Your task to perform on an android device: all mails in gmail Image 0: 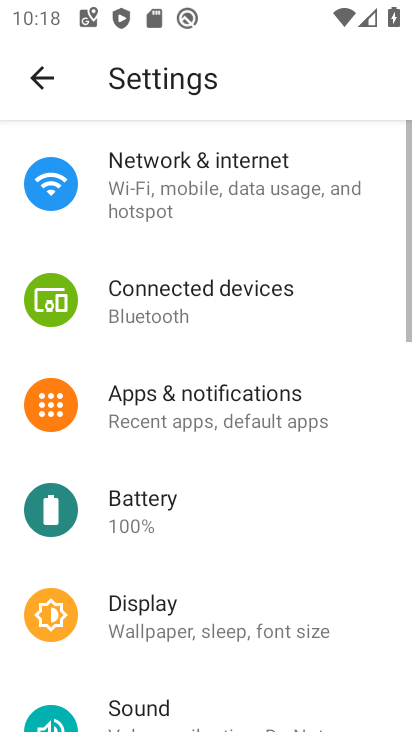
Step 0: press home button
Your task to perform on an android device: all mails in gmail Image 1: 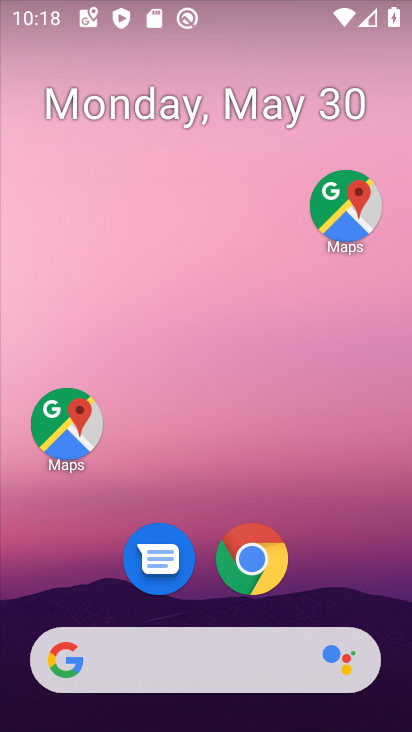
Step 1: drag from (309, 527) to (206, 43)
Your task to perform on an android device: all mails in gmail Image 2: 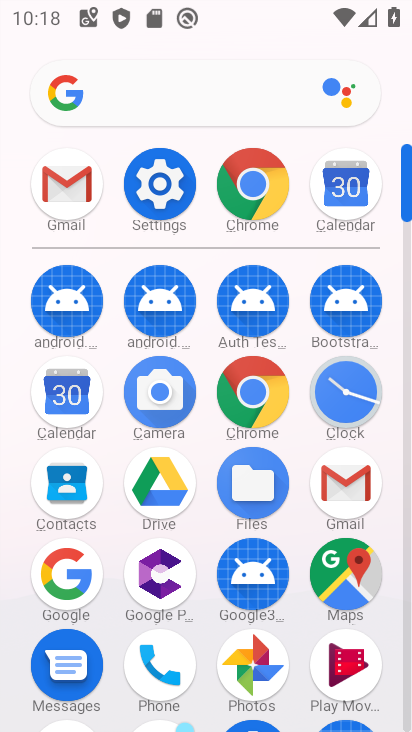
Step 2: click (74, 173)
Your task to perform on an android device: all mails in gmail Image 3: 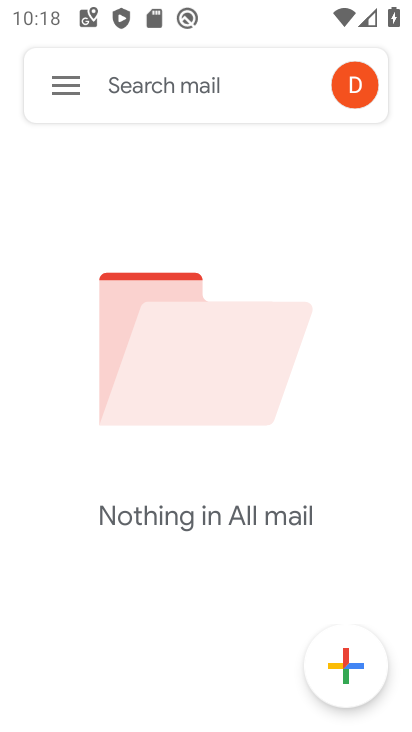
Step 3: task complete